Your task to perform on an android device: Search for good Greek restaurants Image 0: 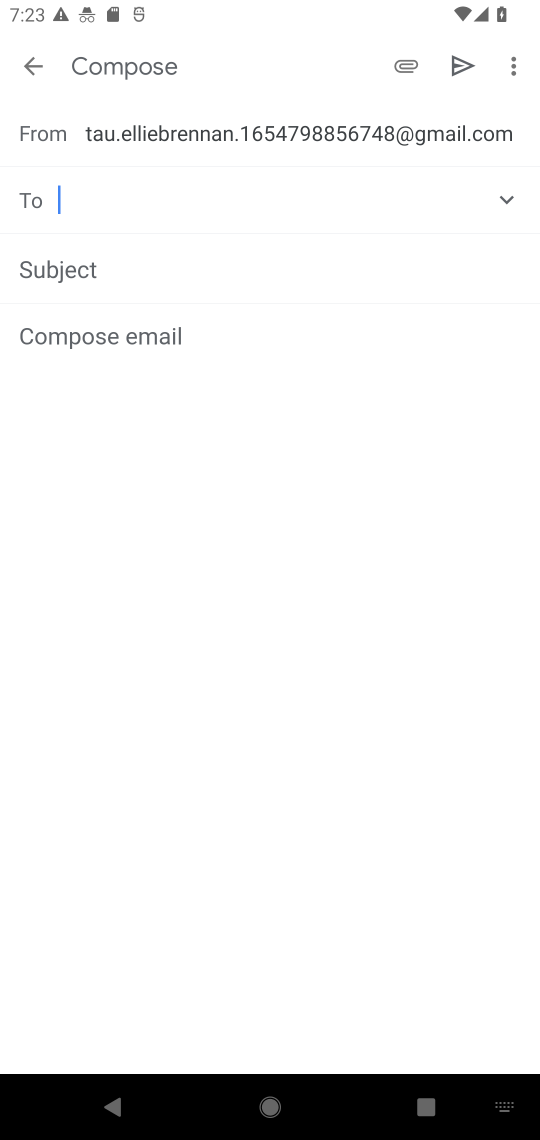
Step 0: press home button
Your task to perform on an android device: Search for good Greek restaurants Image 1: 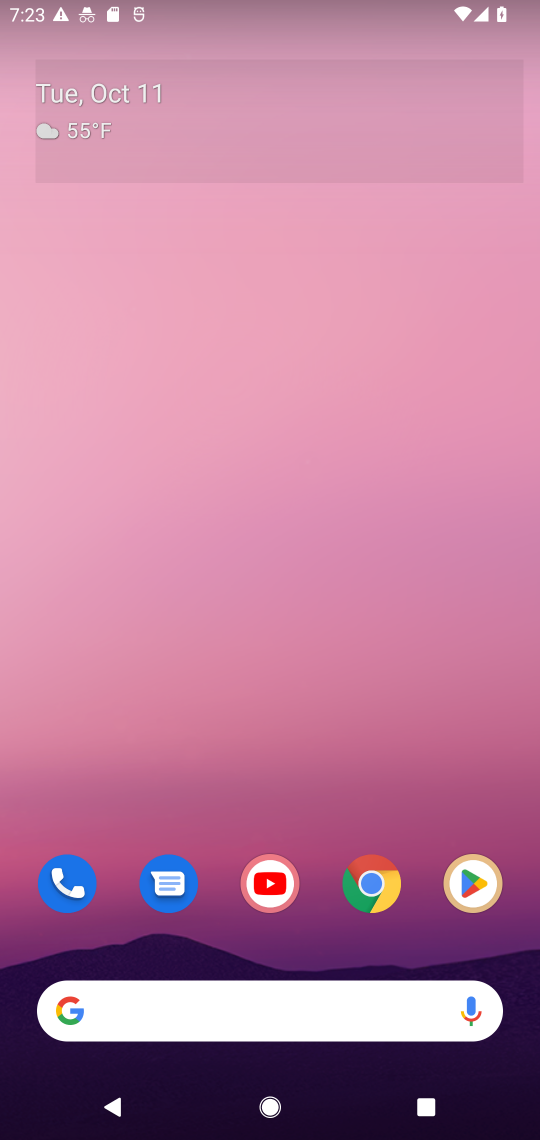
Step 1: drag from (311, 922) to (284, 2)
Your task to perform on an android device: Search for good Greek restaurants Image 2: 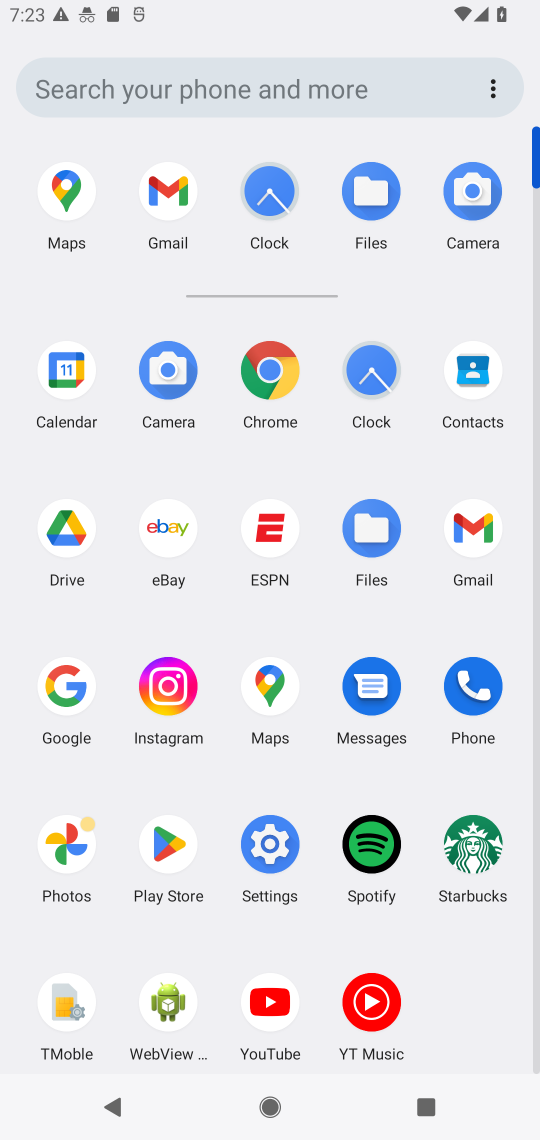
Step 2: click (261, 377)
Your task to perform on an android device: Search for good Greek restaurants Image 3: 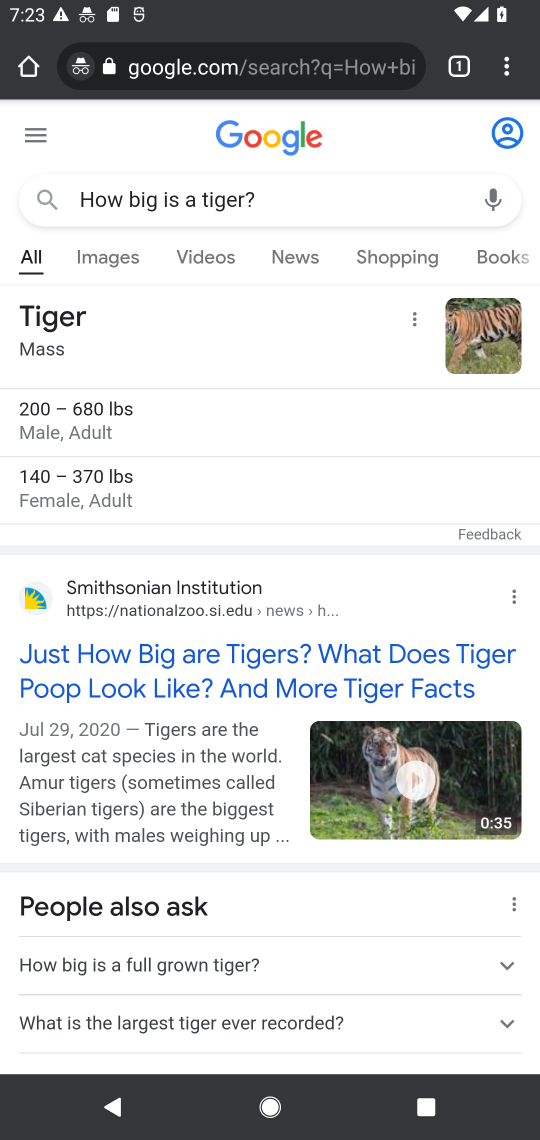
Step 3: click (268, 77)
Your task to perform on an android device: Search for good Greek restaurants Image 4: 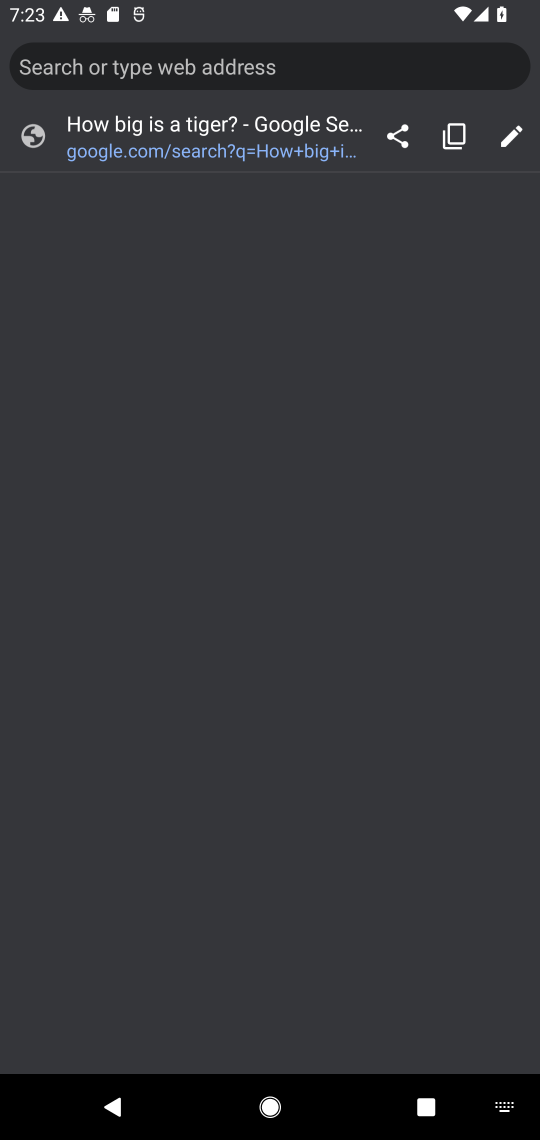
Step 4: type "good Greek restaurants"
Your task to perform on an android device: Search for good Greek restaurants Image 5: 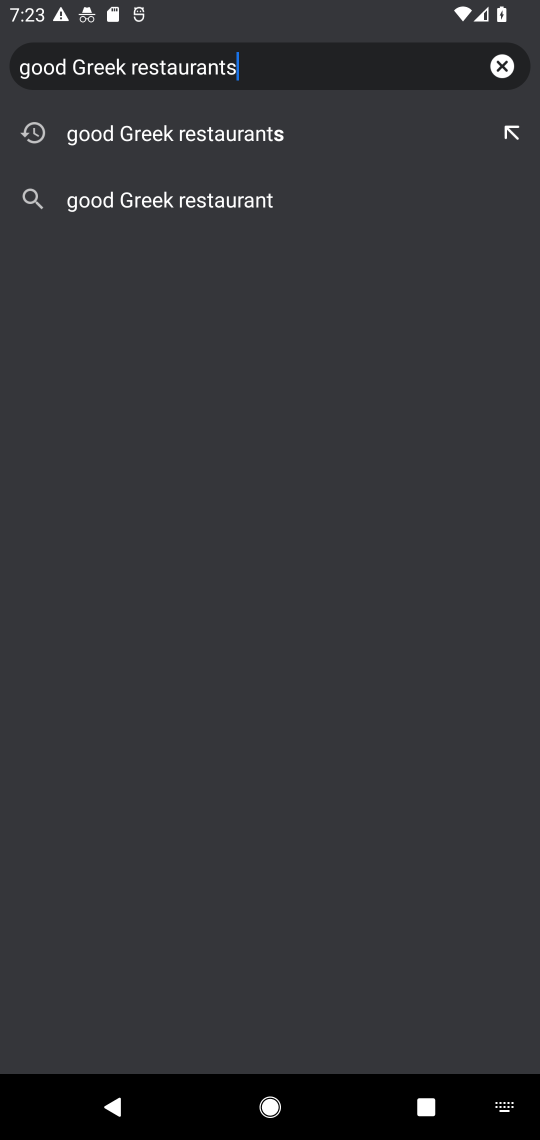
Step 5: press enter
Your task to perform on an android device: Search for good Greek restaurants Image 6: 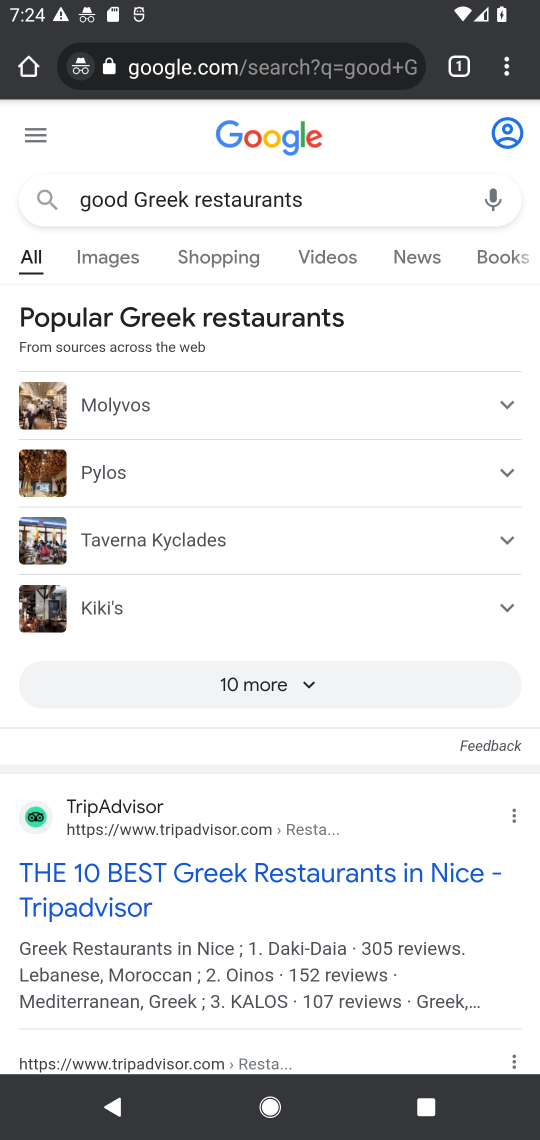
Step 6: task complete